Your task to perform on an android device: open a new tab in the chrome app Image 0: 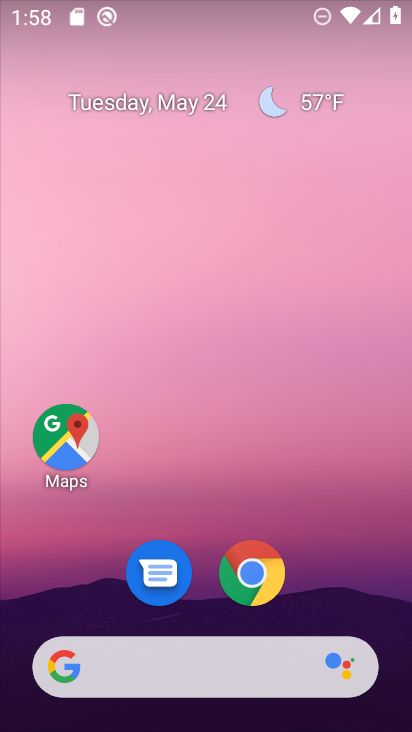
Step 0: drag from (349, 571) to (327, 142)
Your task to perform on an android device: open a new tab in the chrome app Image 1: 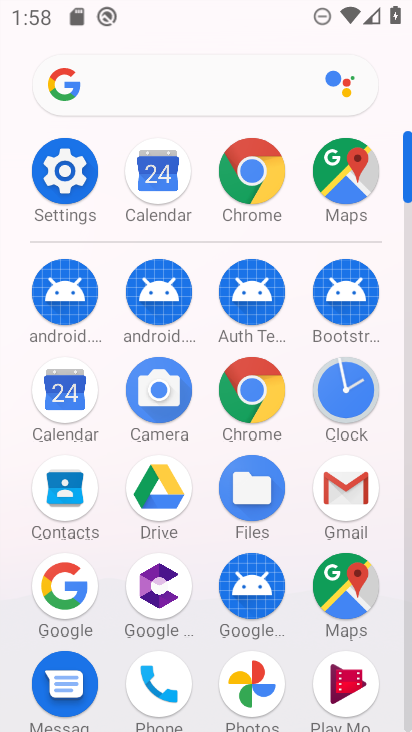
Step 1: click (252, 396)
Your task to perform on an android device: open a new tab in the chrome app Image 2: 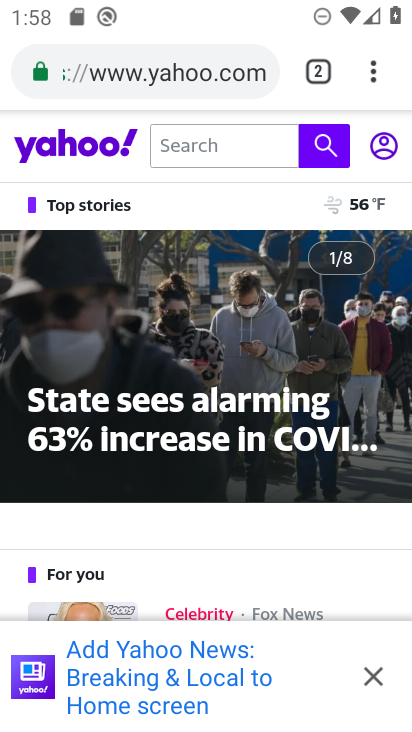
Step 2: click (380, 673)
Your task to perform on an android device: open a new tab in the chrome app Image 3: 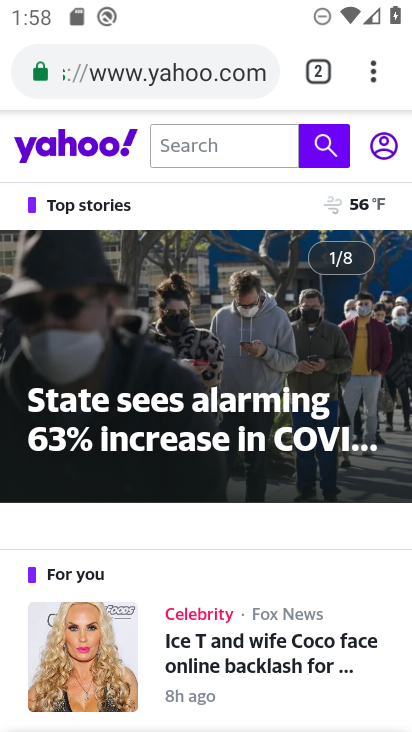
Step 3: click (312, 66)
Your task to perform on an android device: open a new tab in the chrome app Image 4: 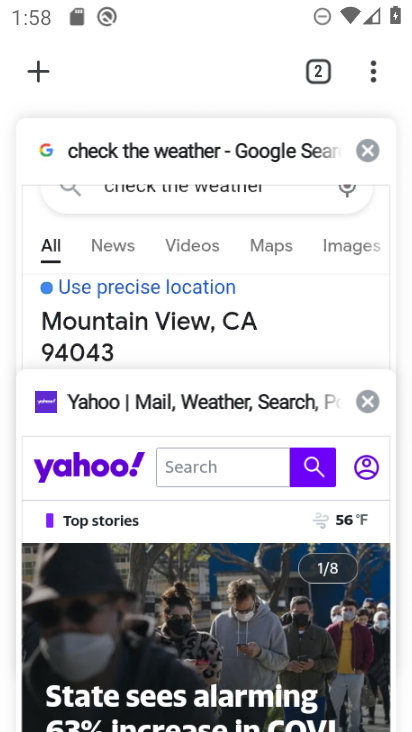
Step 4: click (28, 73)
Your task to perform on an android device: open a new tab in the chrome app Image 5: 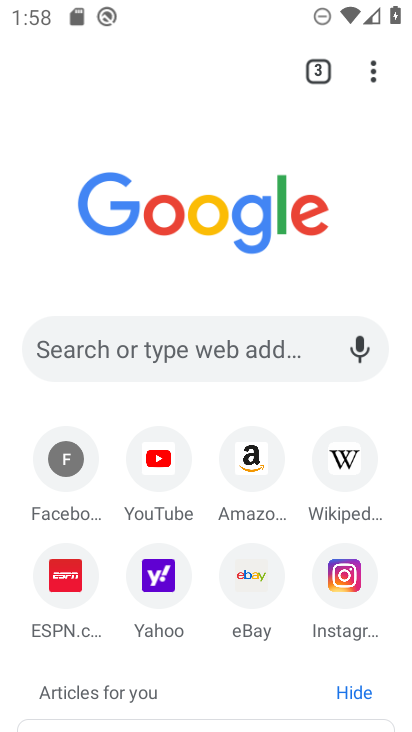
Step 5: task complete